Your task to perform on an android device: What is the recent news? Image 0: 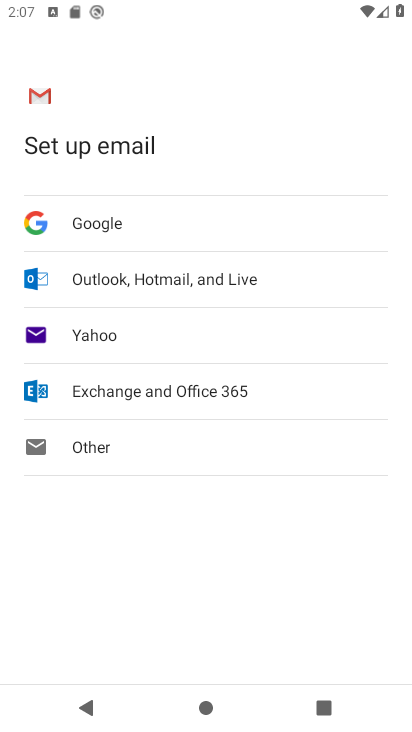
Step 0: press home button
Your task to perform on an android device: What is the recent news? Image 1: 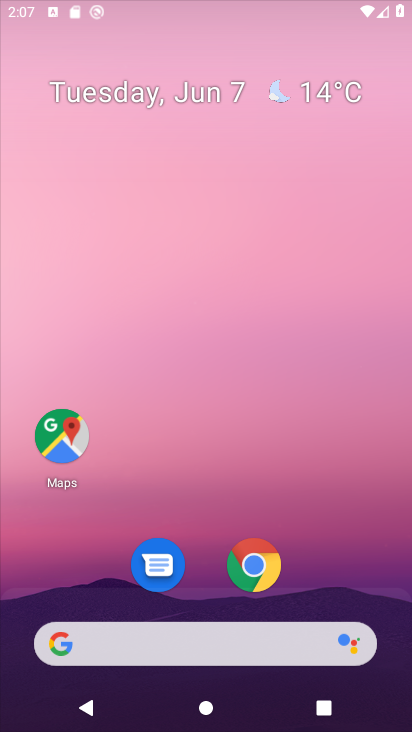
Step 1: drag from (229, 664) to (265, 0)
Your task to perform on an android device: What is the recent news? Image 2: 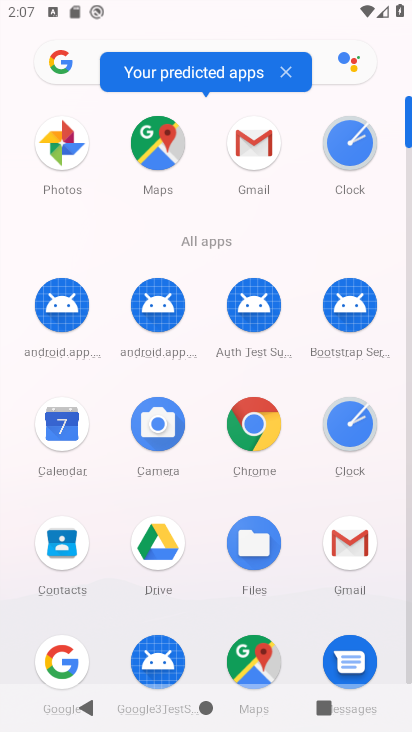
Step 2: click (258, 418)
Your task to perform on an android device: What is the recent news? Image 3: 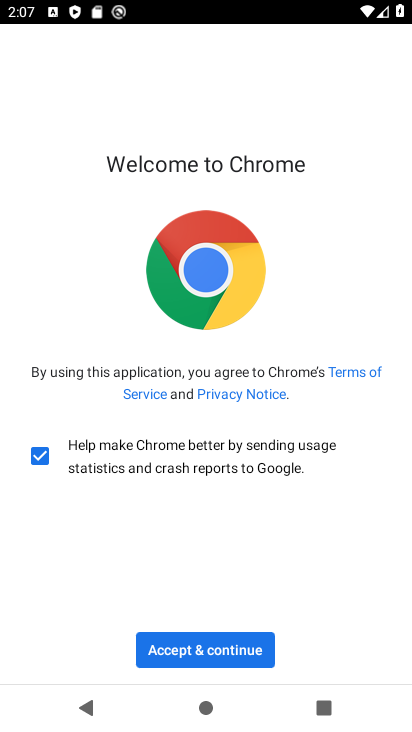
Step 3: click (230, 645)
Your task to perform on an android device: What is the recent news? Image 4: 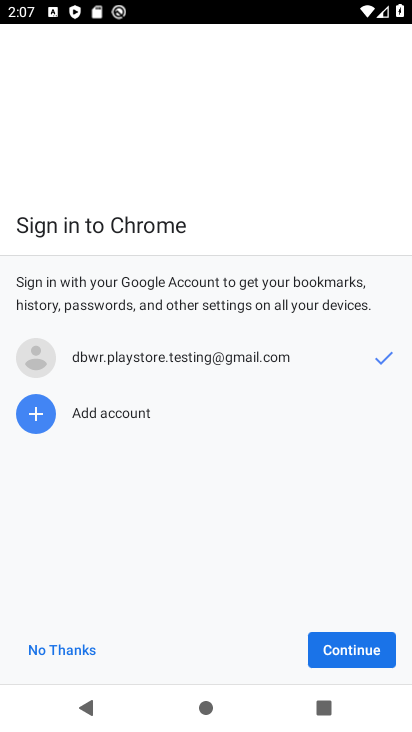
Step 4: click (67, 644)
Your task to perform on an android device: What is the recent news? Image 5: 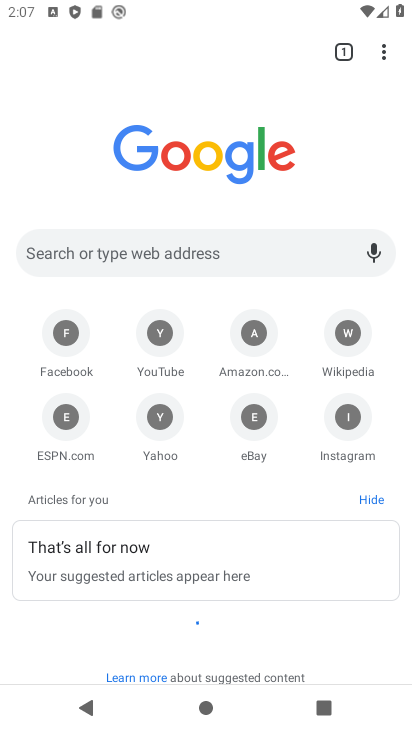
Step 5: click (218, 55)
Your task to perform on an android device: What is the recent news? Image 6: 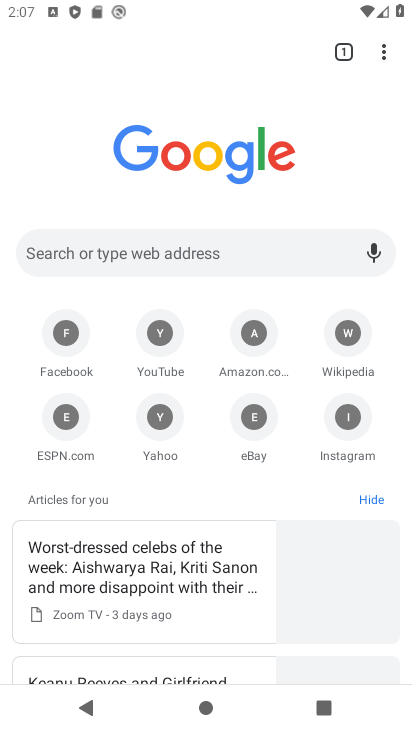
Step 6: click (186, 263)
Your task to perform on an android device: What is the recent news? Image 7: 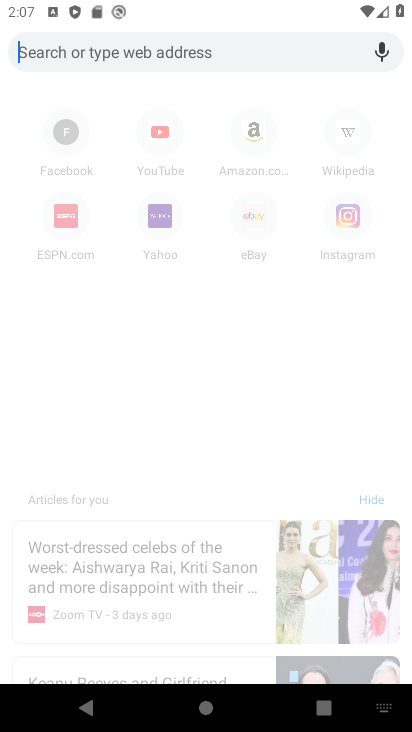
Step 7: type "recent news"
Your task to perform on an android device: What is the recent news? Image 8: 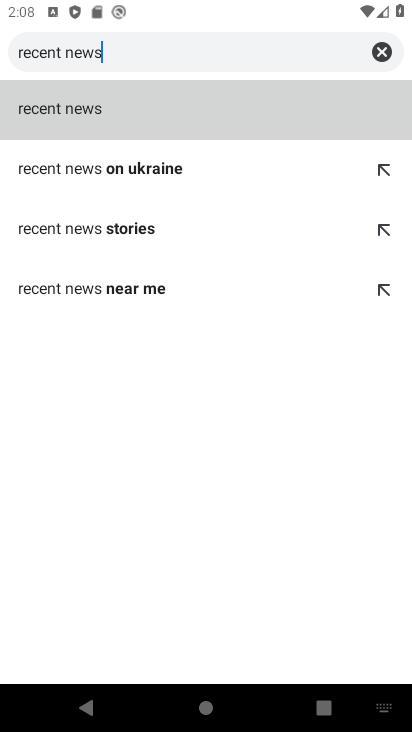
Step 8: click (126, 110)
Your task to perform on an android device: What is the recent news? Image 9: 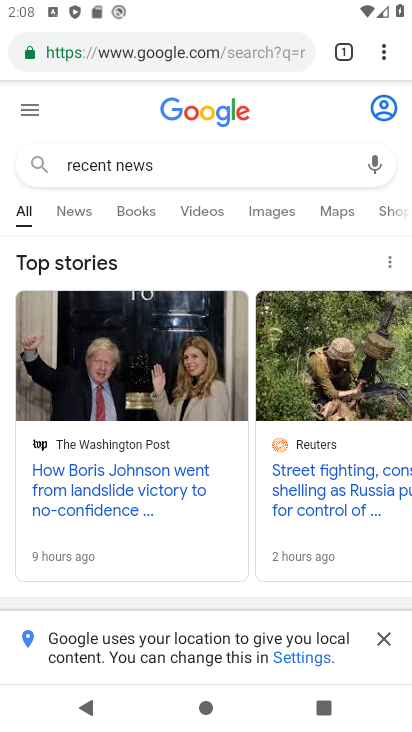
Step 9: task complete